Your task to perform on an android device: Open calendar and show me the fourth week of next month Image 0: 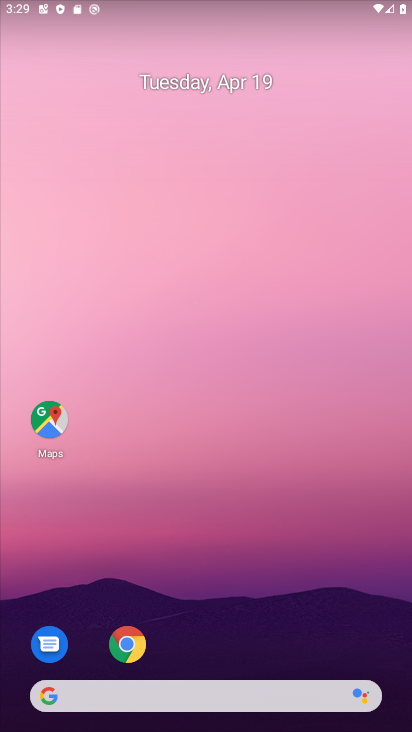
Step 0: drag from (328, 219) to (324, 183)
Your task to perform on an android device: Open calendar and show me the fourth week of next month Image 1: 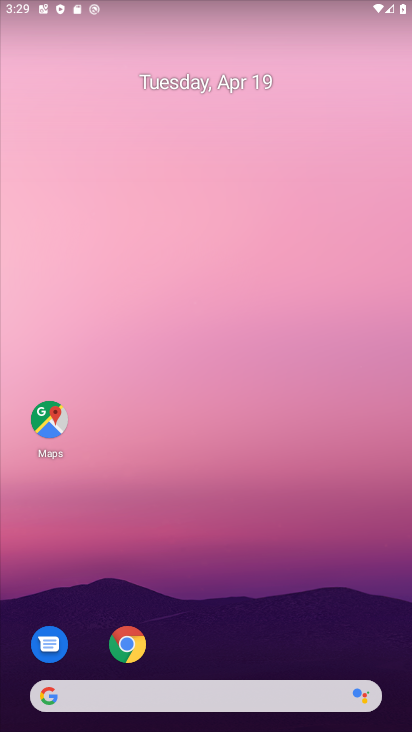
Step 1: drag from (305, 615) to (274, 153)
Your task to perform on an android device: Open calendar and show me the fourth week of next month Image 2: 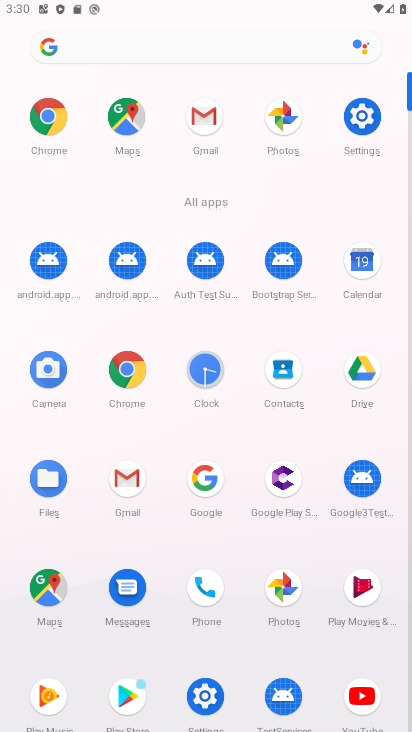
Step 2: click (196, 369)
Your task to perform on an android device: Open calendar and show me the fourth week of next month Image 3: 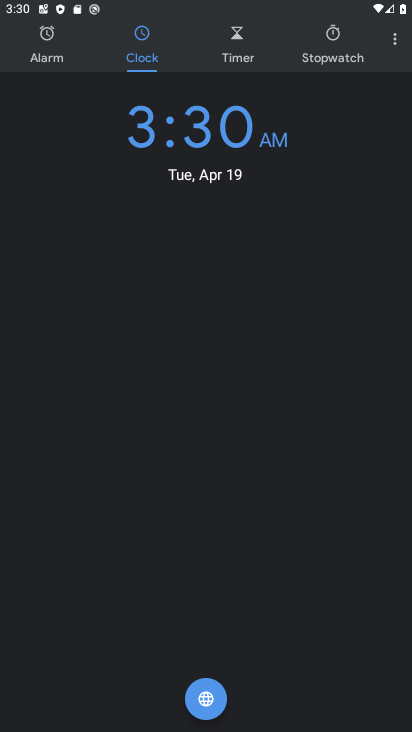
Step 3: press back button
Your task to perform on an android device: Open calendar and show me the fourth week of next month Image 4: 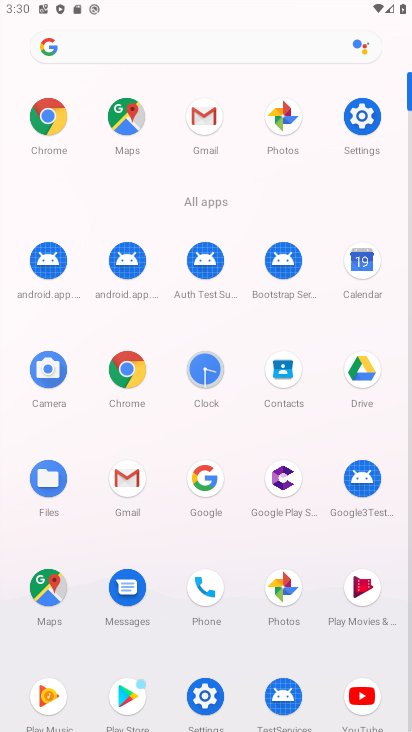
Step 4: click (359, 264)
Your task to perform on an android device: Open calendar and show me the fourth week of next month Image 5: 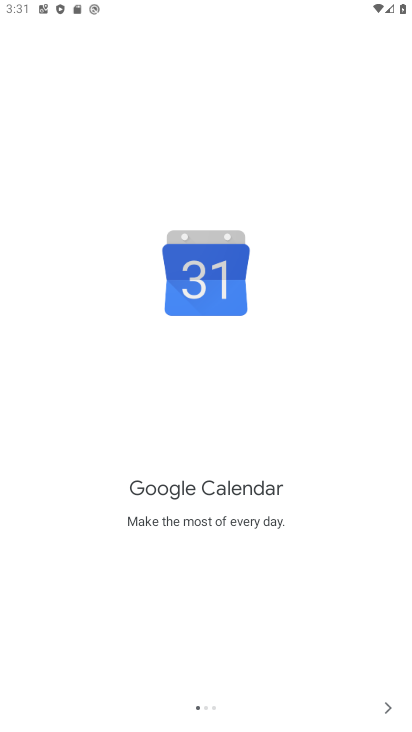
Step 5: click (386, 704)
Your task to perform on an android device: Open calendar and show me the fourth week of next month Image 6: 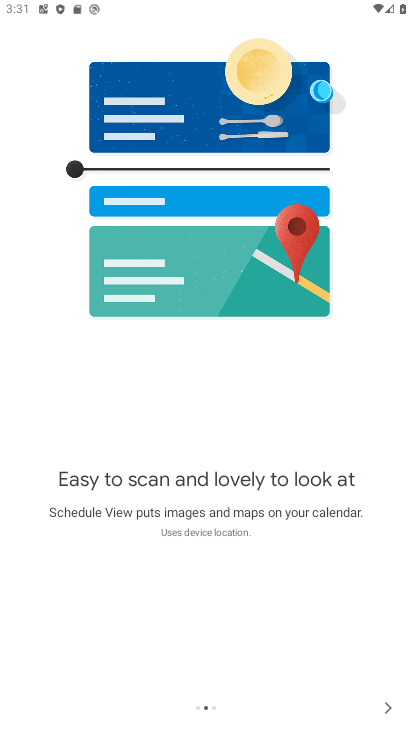
Step 6: click (386, 704)
Your task to perform on an android device: Open calendar and show me the fourth week of next month Image 7: 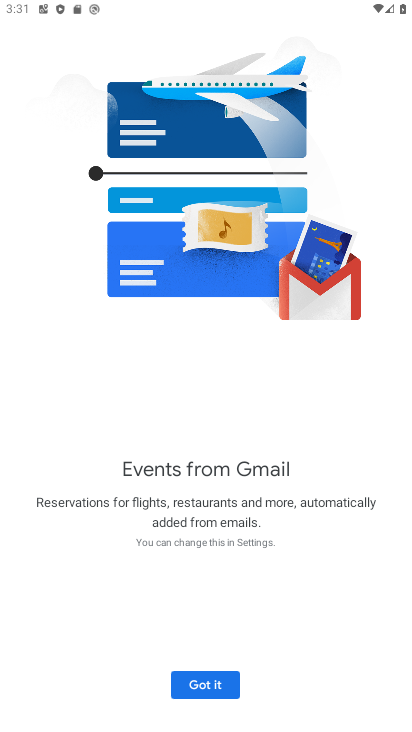
Step 7: click (386, 704)
Your task to perform on an android device: Open calendar and show me the fourth week of next month Image 8: 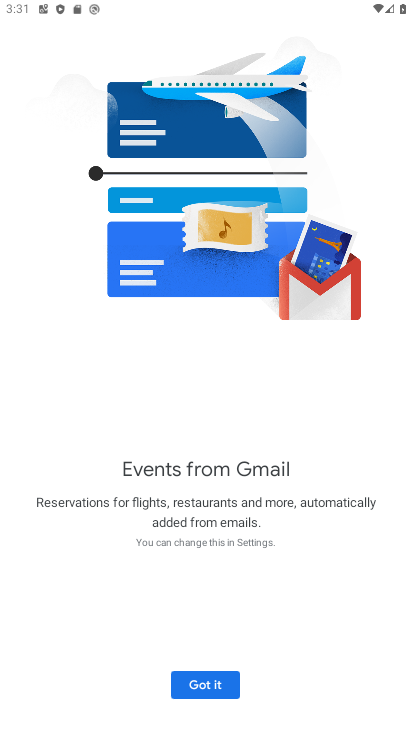
Step 8: click (209, 686)
Your task to perform on an android device: Open calendar and show me the fourth week of next month Image 9: 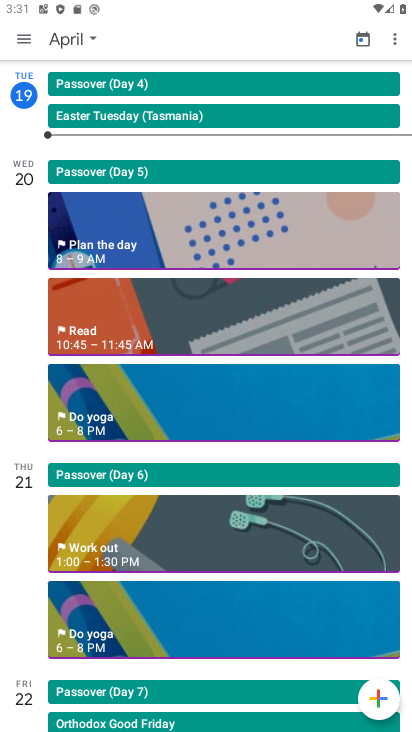
Step 9: click (91, 36)
Your task to perform on an android device: Open calendar and show me the fourth week of next month Image 10: 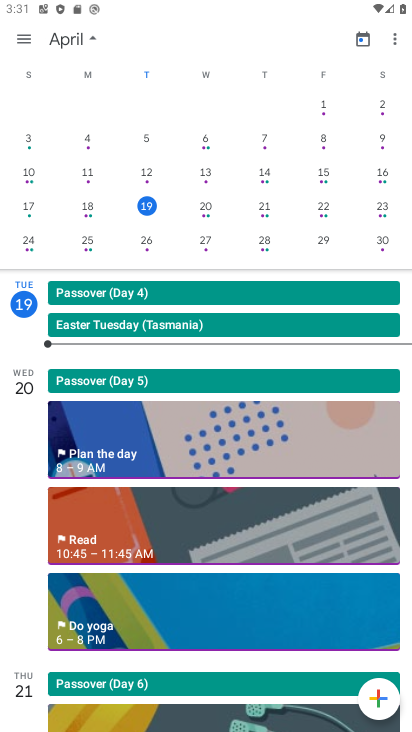
Step 10: drag from (389, 156) to (166, 170)
Your task to perform on an android device: Open calendar and show me the fourth week of next month Image 11: 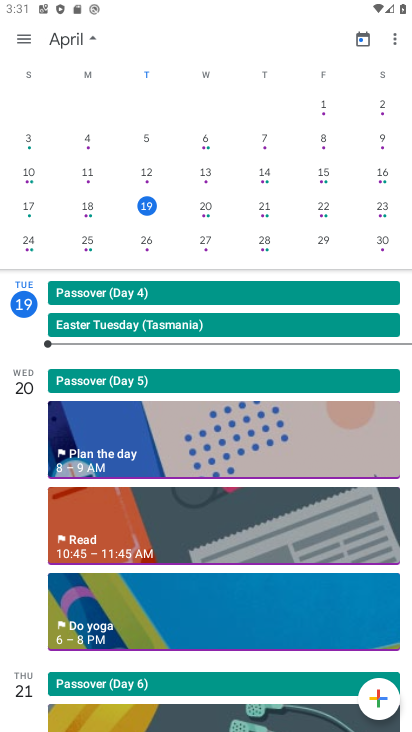
Step 11: drag from (380, 145) to (73, 156)
Your task to perform on an android device: Open calendar and show me the fourth week of next month Image 12: 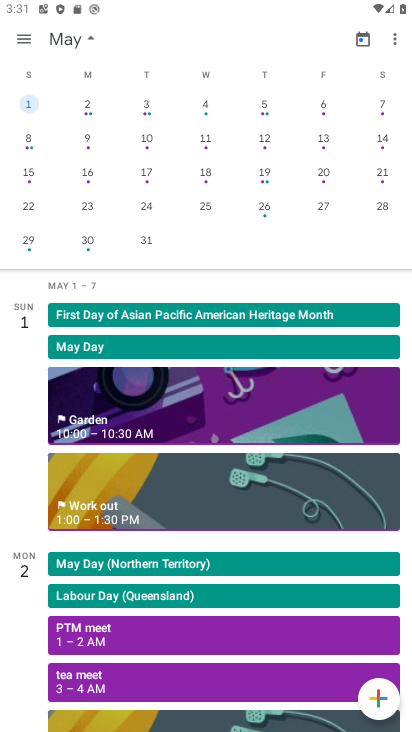
Step 12: click (147, 134)
Your task to perform on an android device: Open calendar and show me the fourth week of next month Image 13: 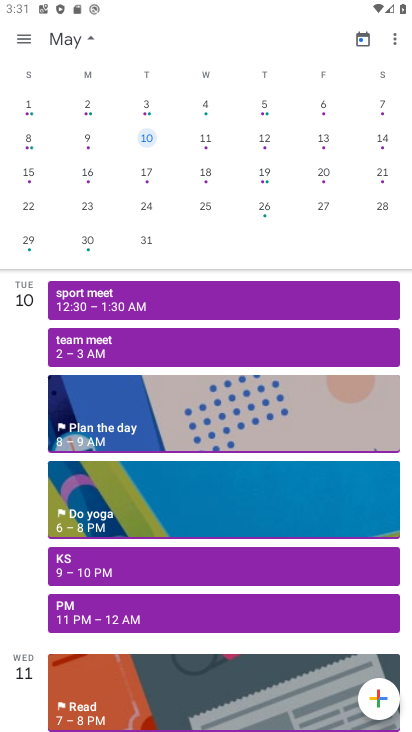
Step 13: task complete